Your task to perform on an android device: What's the weather today? Image 0: 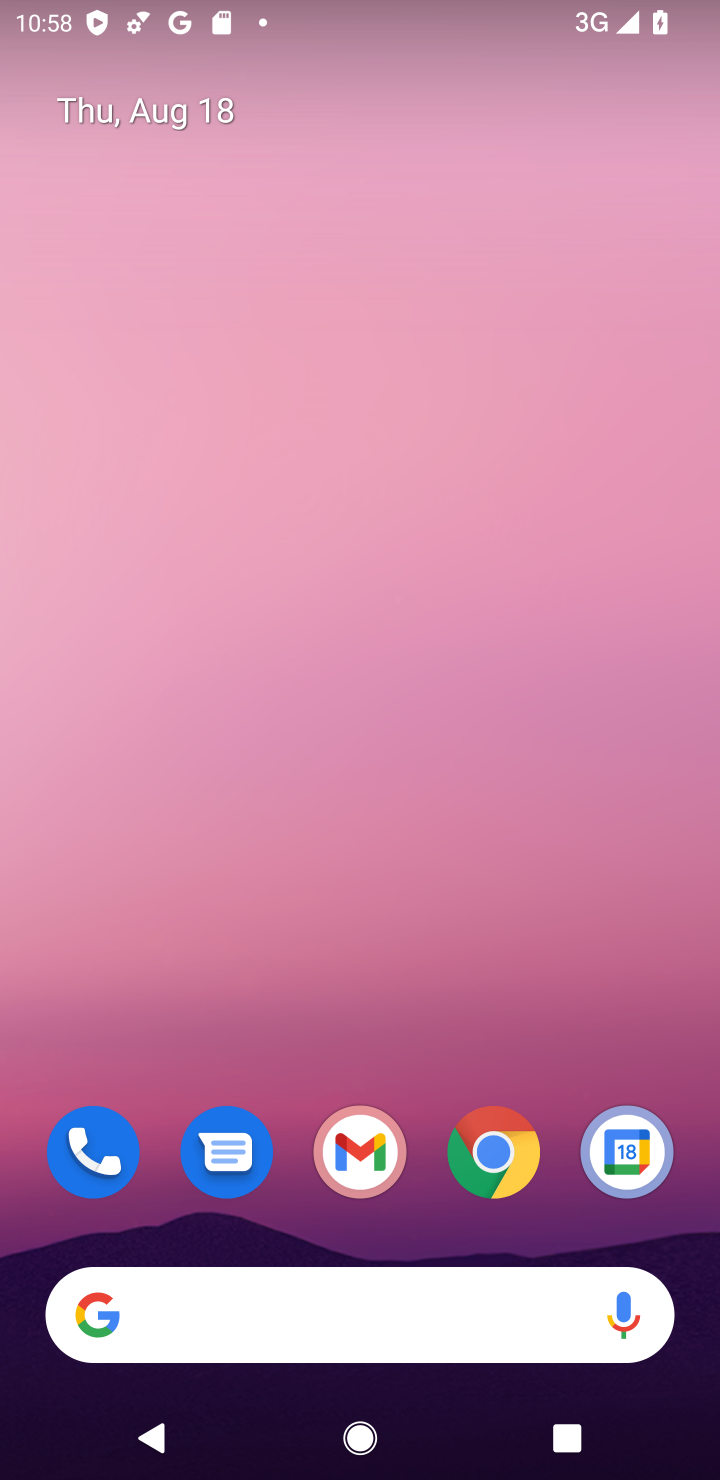
Step 0: click (335, 1318)
Your task to perform on an android device: What's the weather today? Image 1: 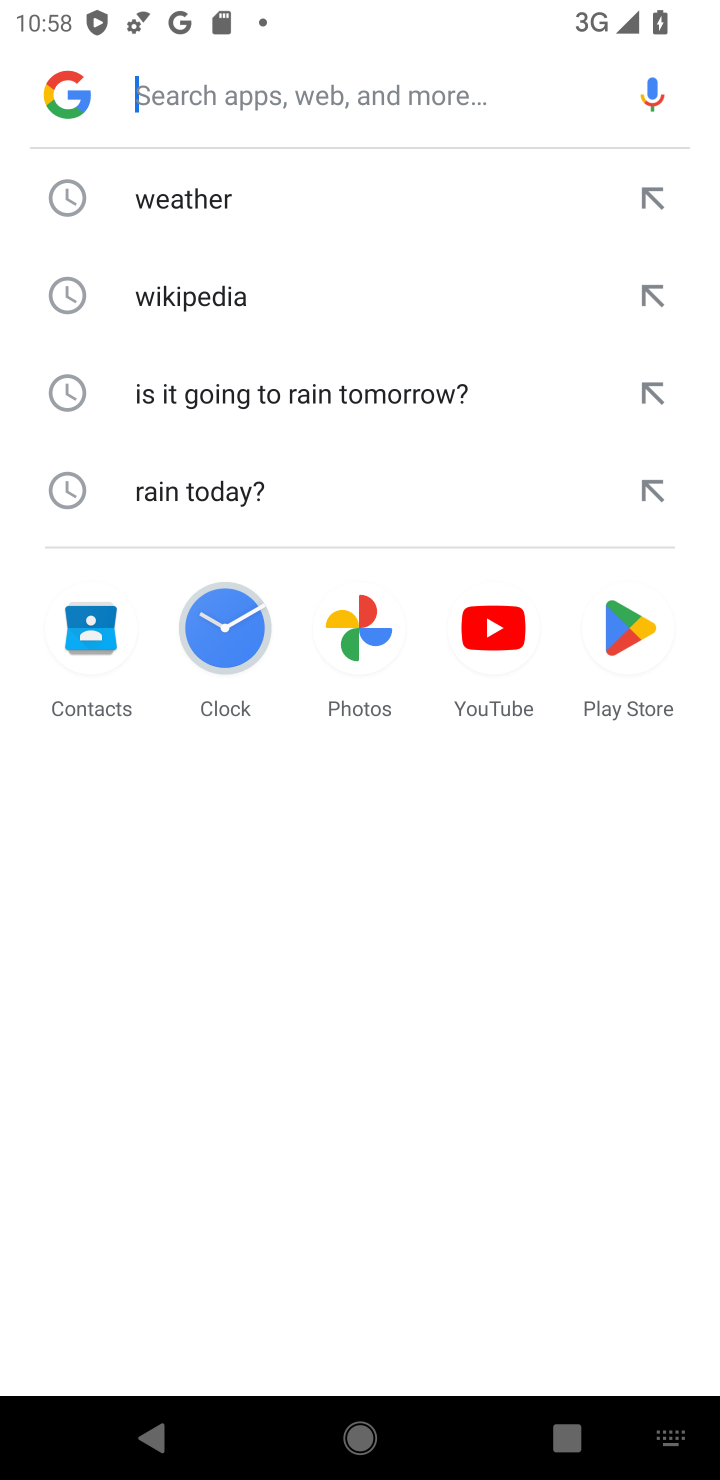
Step 1: click (190, 195)
Your task to perform on an android device: What's the weather today? Image 2: 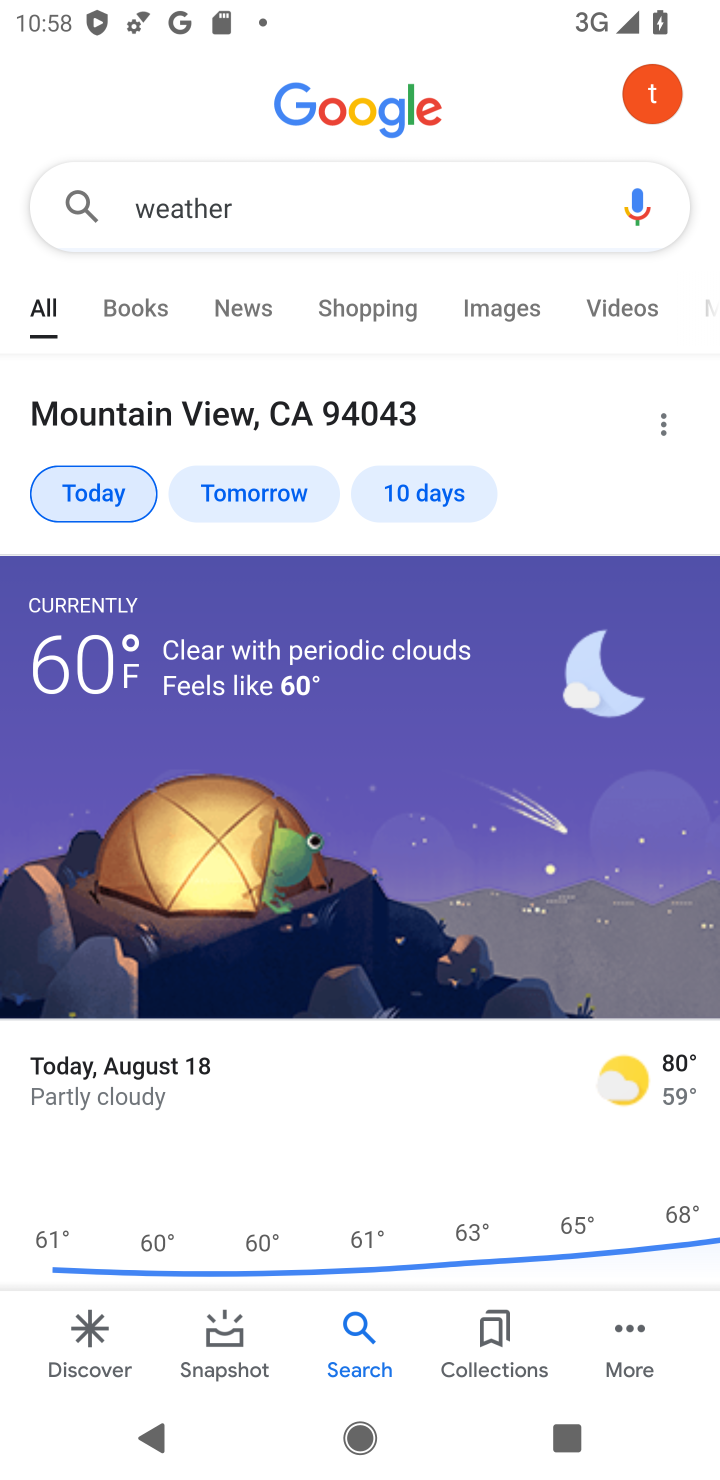
Step 2: click (110, 481)
Your task to perform on an android device: What's the weather today? Image 3: 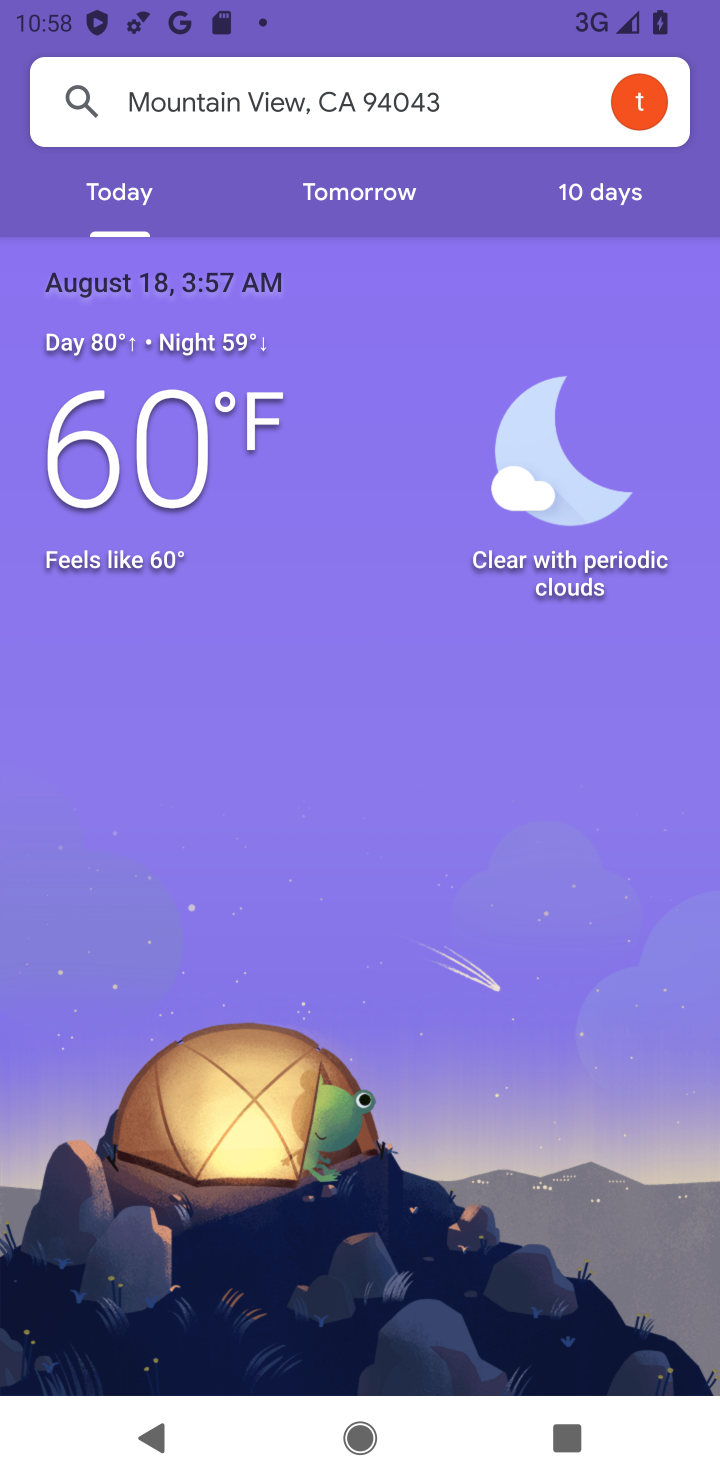
Step 3: drag from (535, 835) to (541, 683)
Your task to perform on an android device: What's the weather today? Image 4: 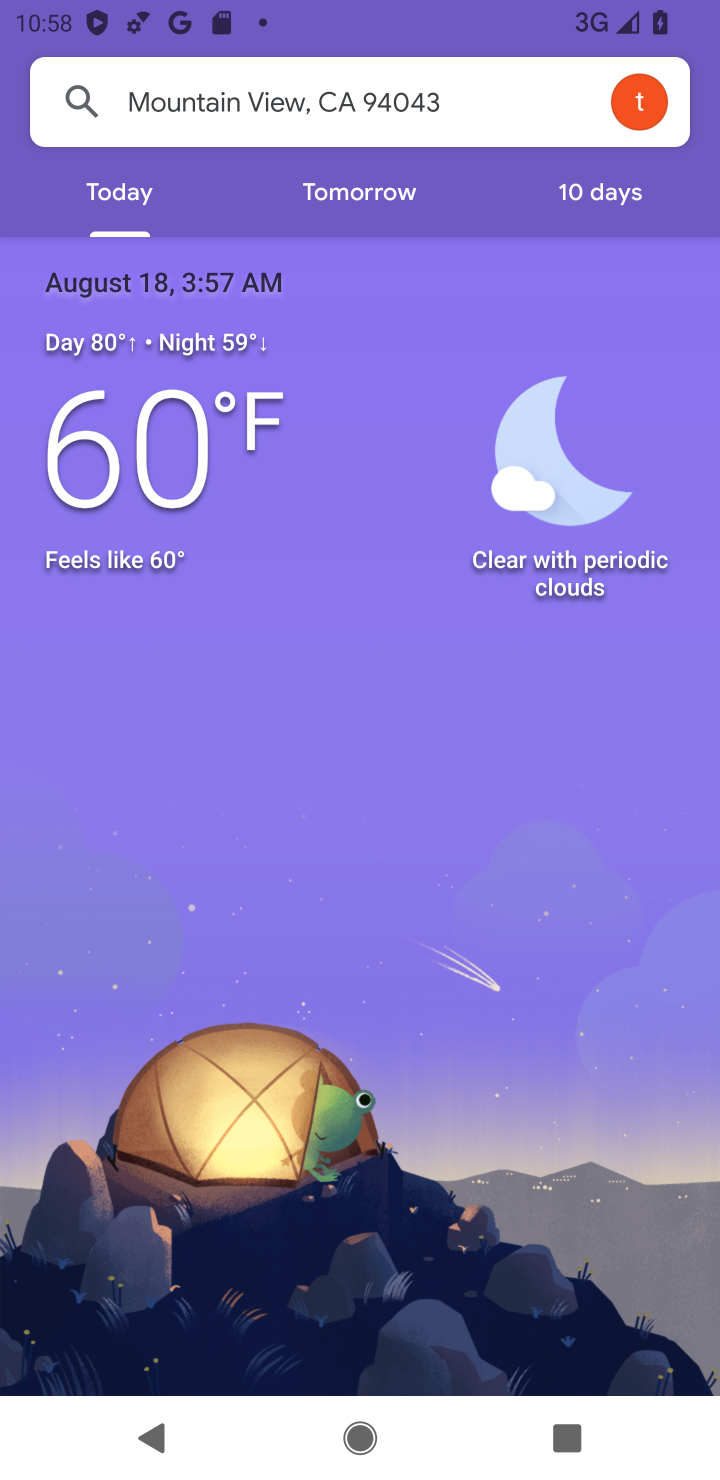
Step 4: click (543, 262)
Your task to perform on an android device: What's the weather today? Image 5: 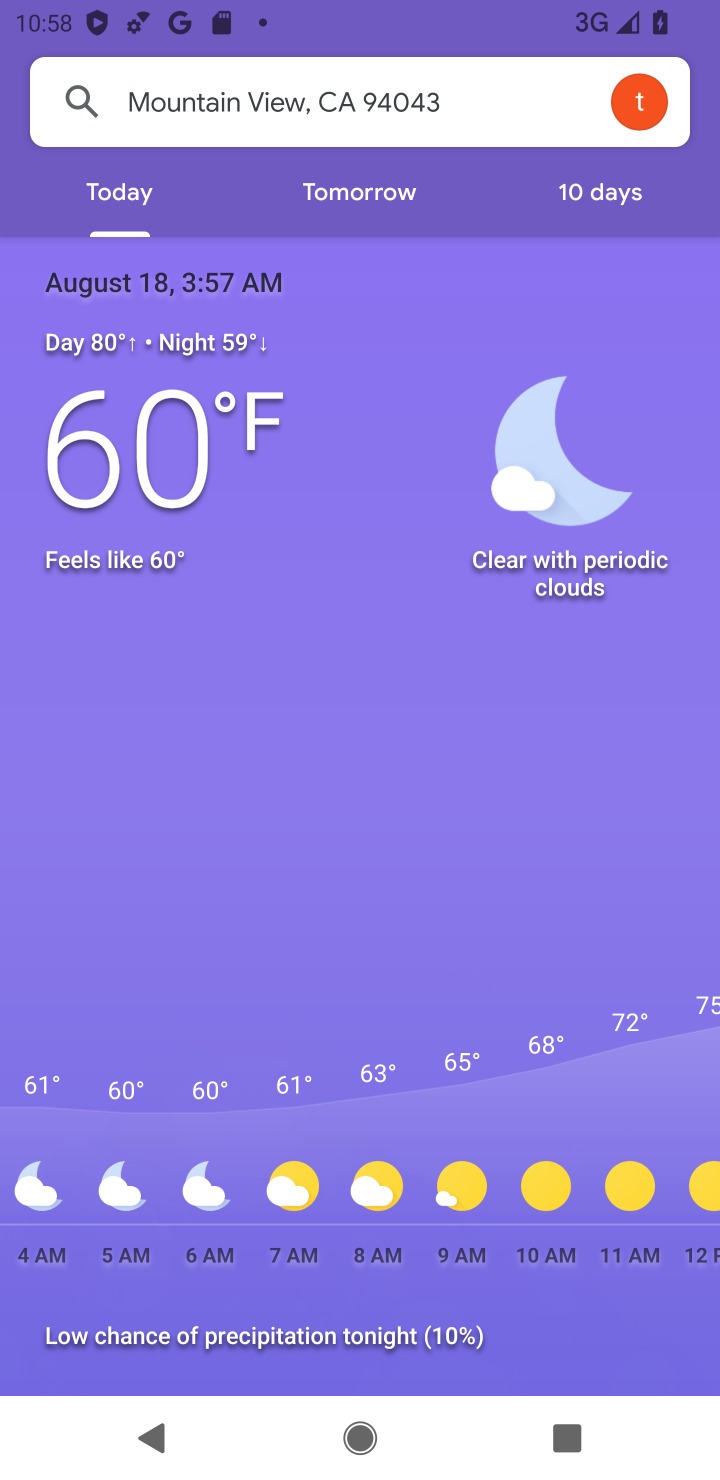
Step 5: drag from (486, 901) to (482, 297)
Your task to perform on an android device: What's the weather today? Image 6: 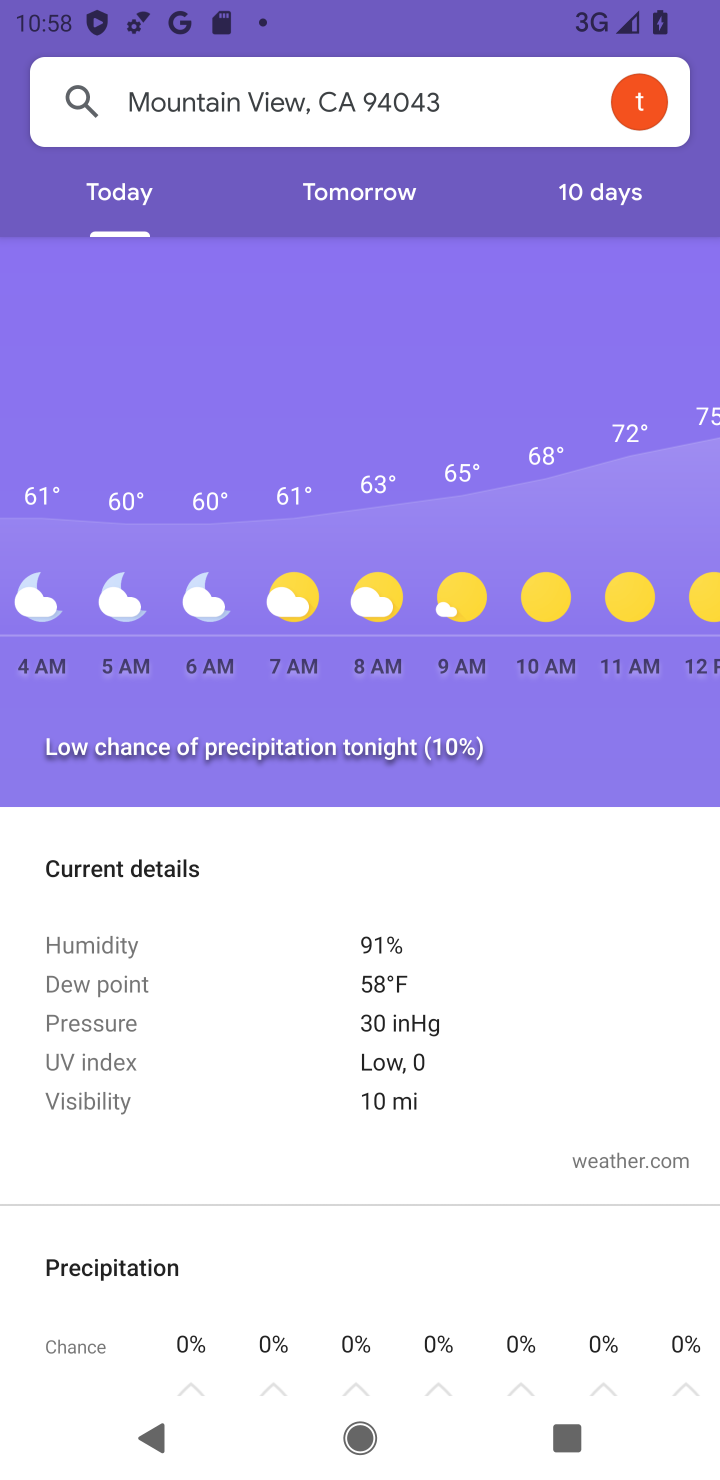
Step 6: click (479, 1210)
Your task to perform on an android device: What's the weather today? Image 7: 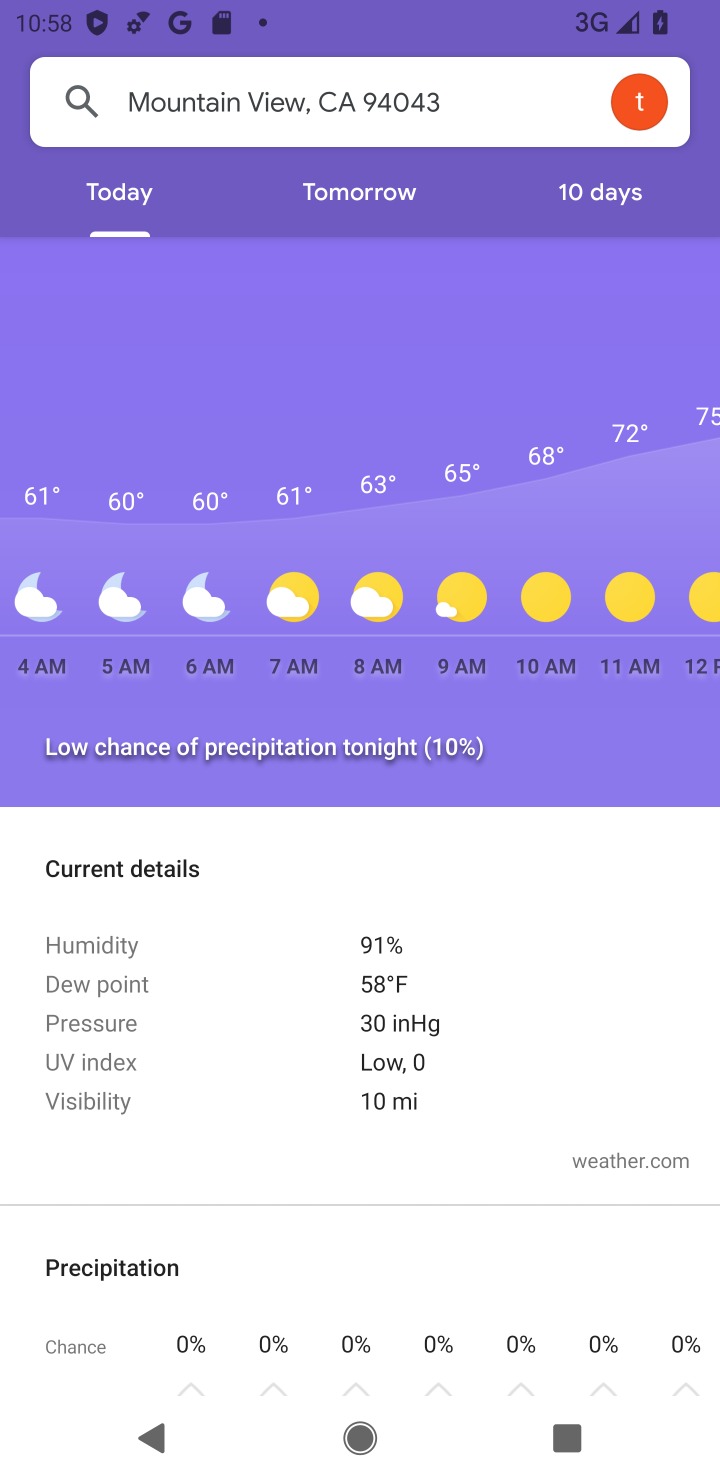
Step 7: drag from (527, 828) to (586, 418)
Your task to perform on an android device: What's the weather today? Image 8: 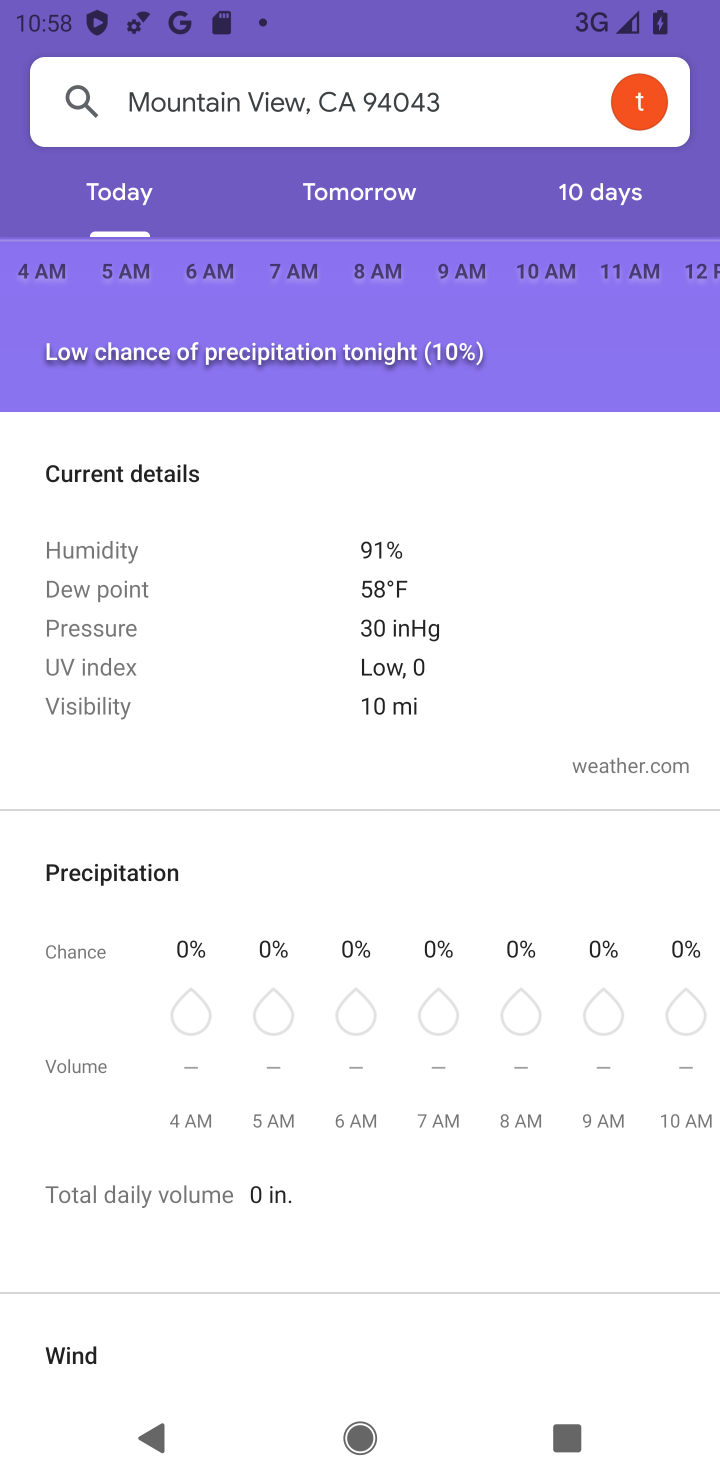
Step 8: drag from (506, 1038) to (515, 970)
Your task to perform on an android device: What's the weather today? Image 9: 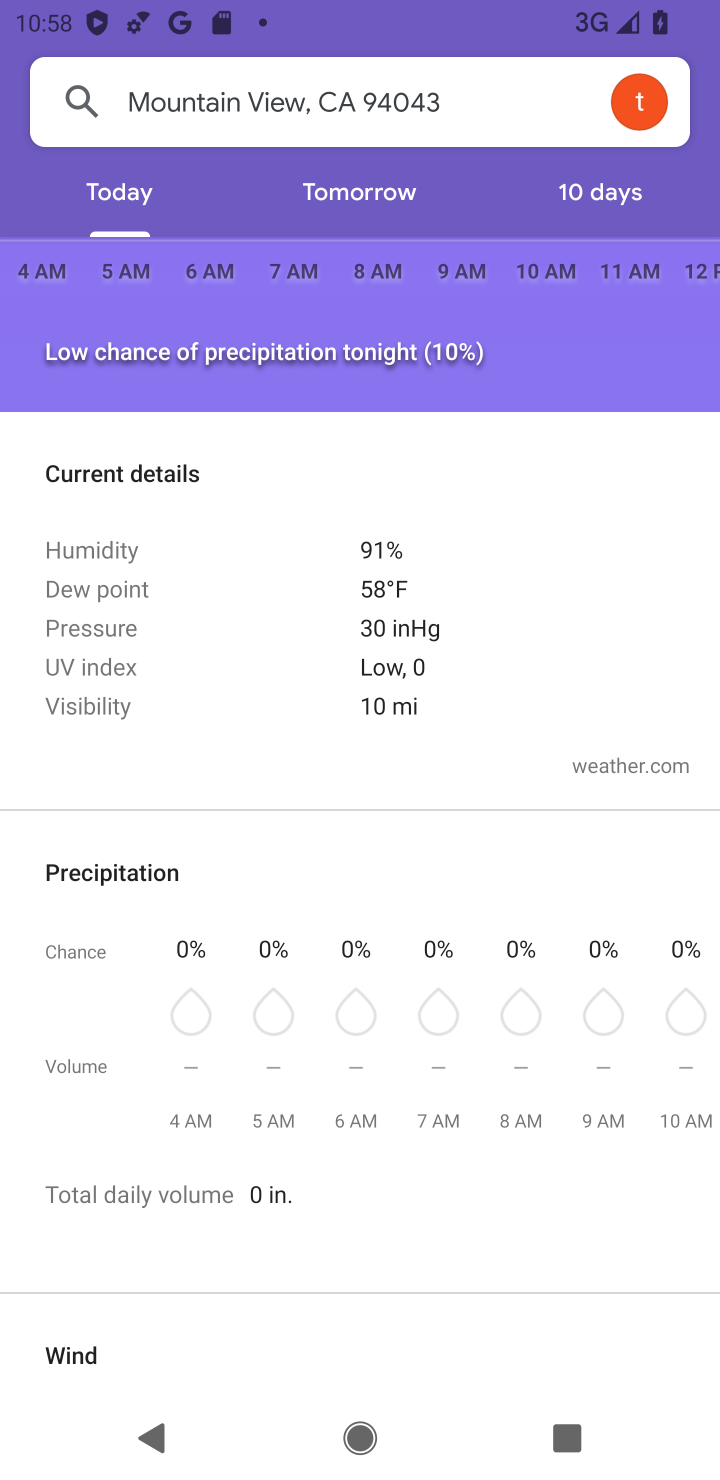
Step 9: drag from (532, 817) to (529, 677)
Your task to perform on an android device: What's the weather today? Image 10: 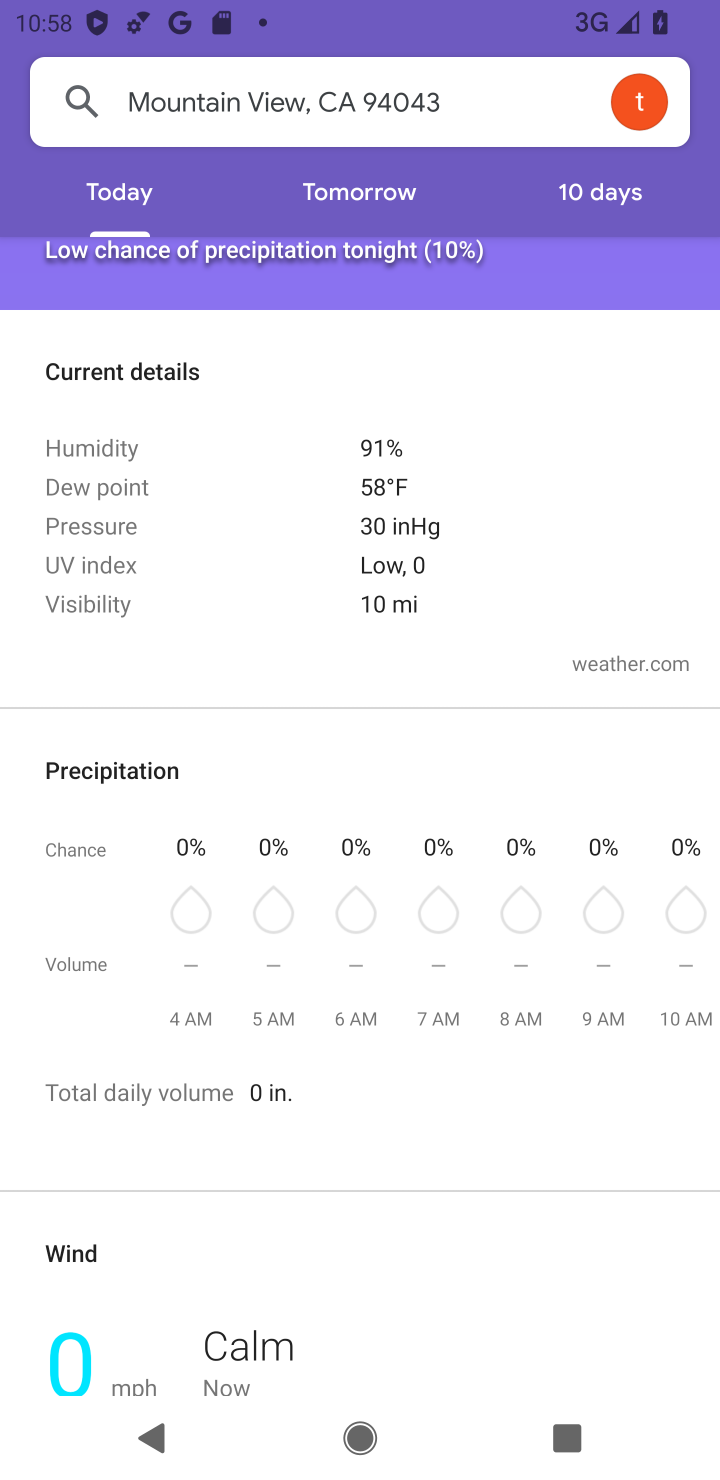
Step 10: click (526, 591)
Your task to perform on an android device: What's the weather today? Image 11: 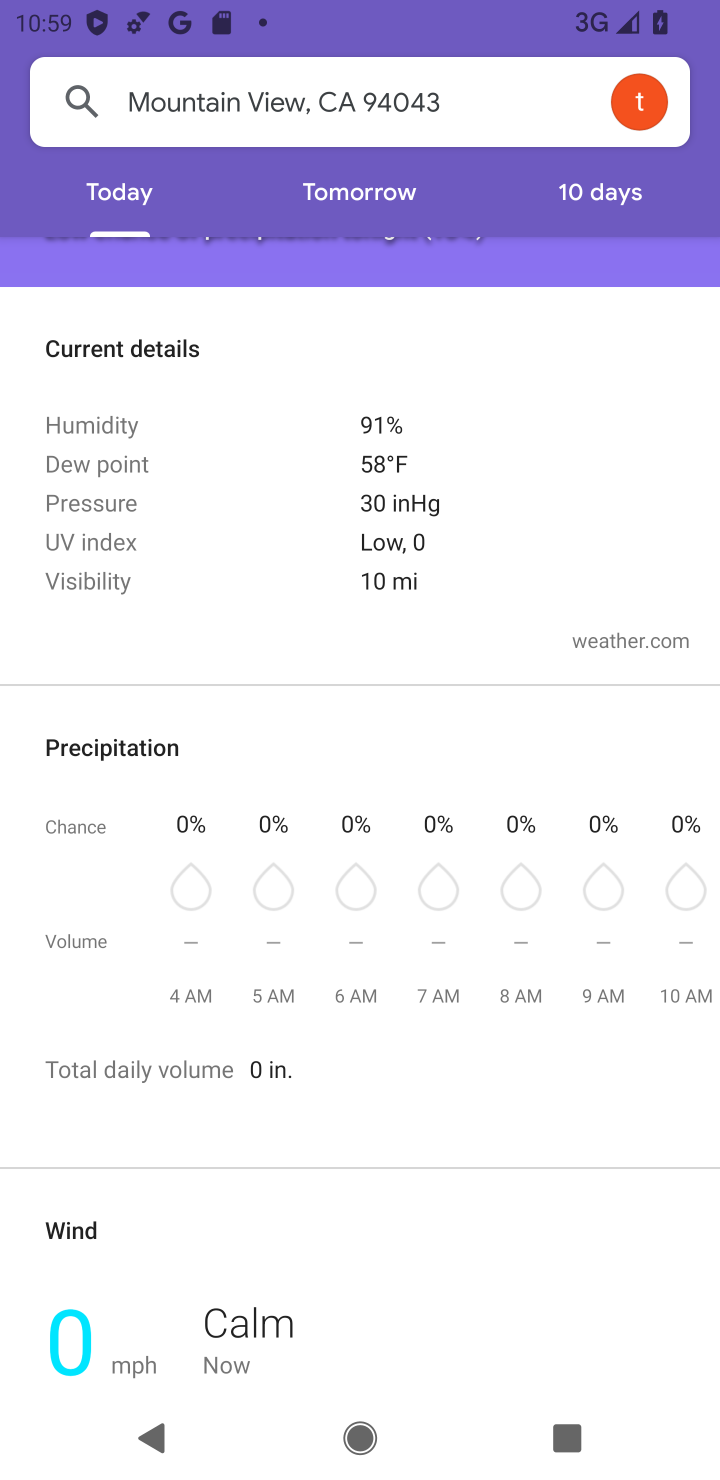
Step 11: task complete